Your task to perform on an android device: set the timer Image 0: 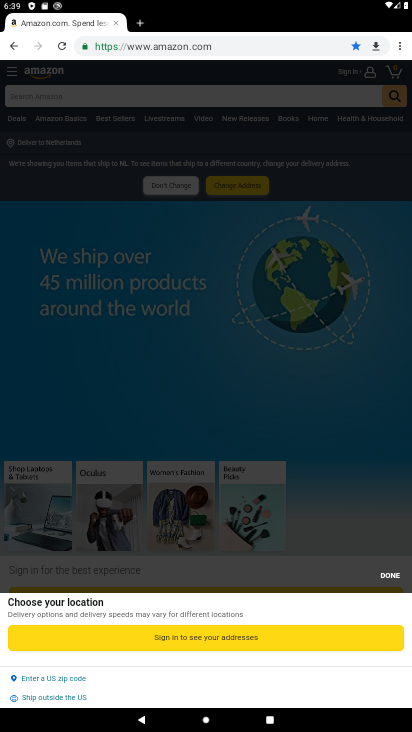
Step 0: press home button
Your task to perform on an android device: set the timer Image 1: 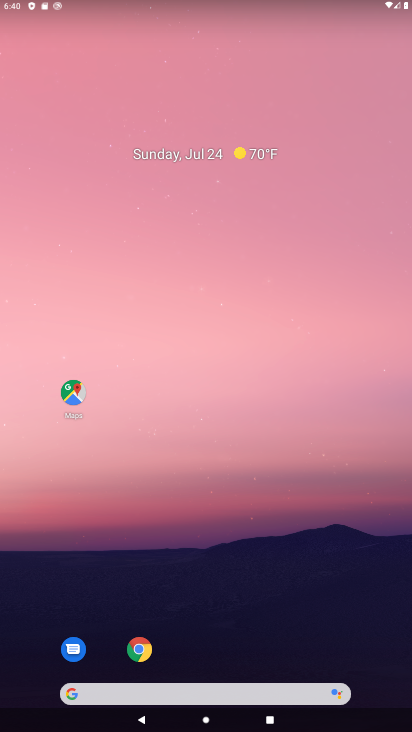
Step 1: drag from (230, 611) to (151, 39)
Your task to perform on an android device: set the timer Image 2: 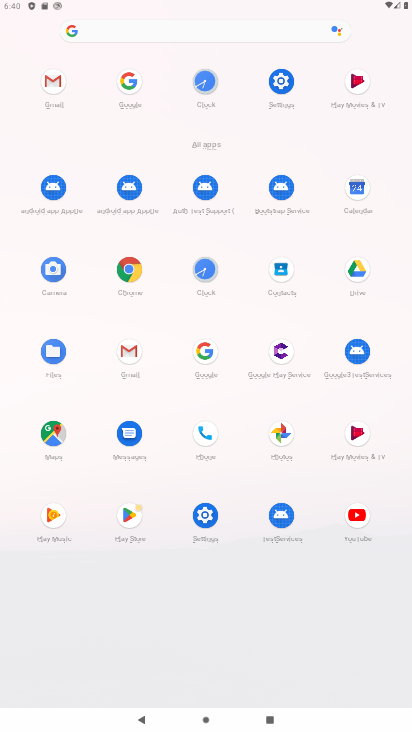
Step 2: click (199, 79)
Your task to perform on an android device: set the timer Image 3: 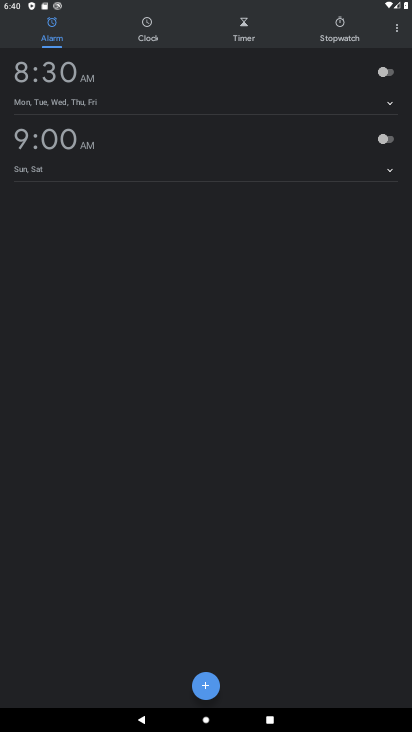
Step 3: click (245, 31)
Your task to perform on an android device: set the timer Image 4: 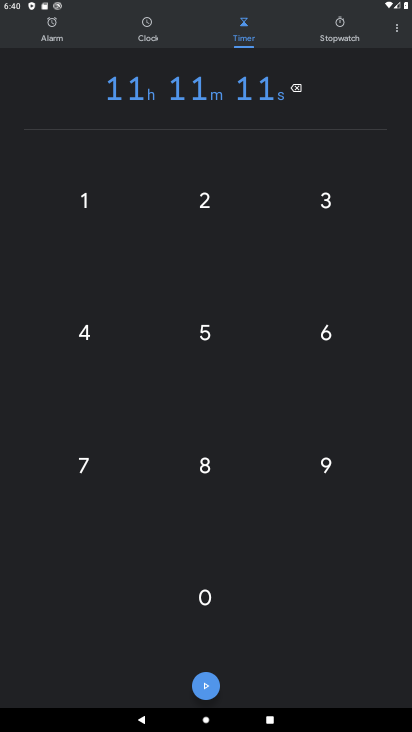
Step 4: task complete